Your task to perform on an android device: Open Google Maps Image 0: 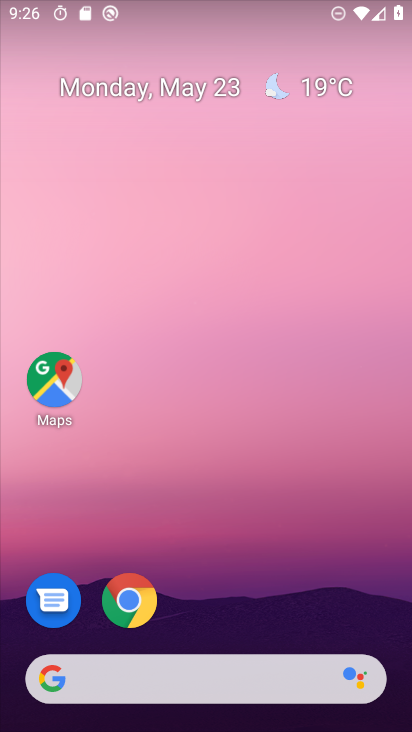
Step 0: click (44, 376)
Your task to perform on an android device: Open Google Maps Image 1: 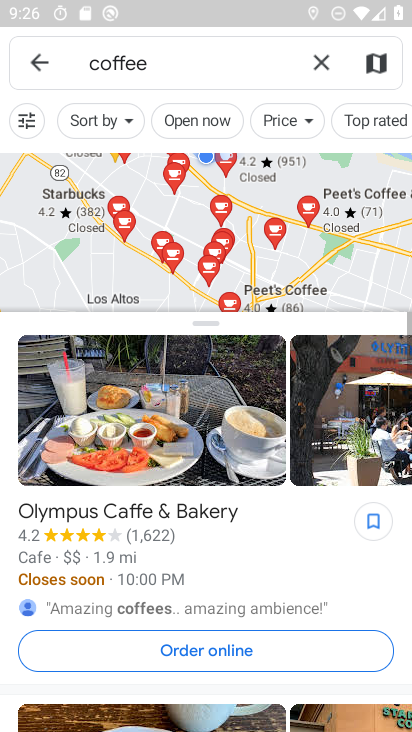
Step 1: click (316, 57)
Your task to perform on an android device: Open Google Maps Image 2: 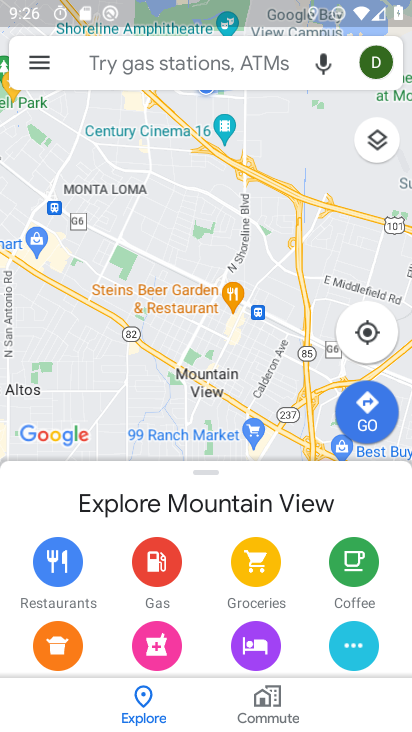
Step 2: task complete